Your task to perform on an android device: toggle translation in the chrome app Image 0: 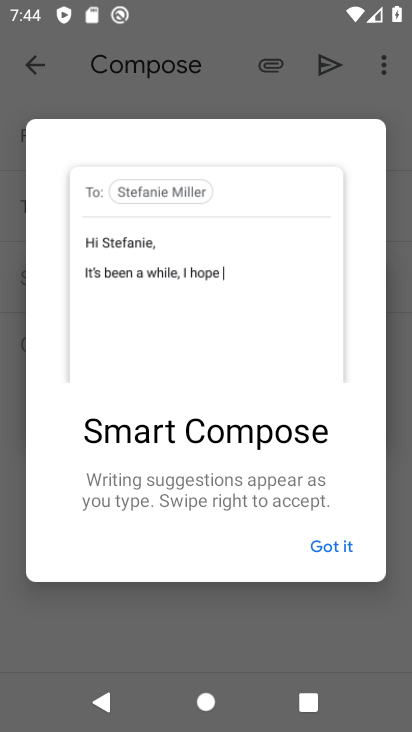
Step 0: click (337, 542)
Your task to perform on an android device: toggle translation in the chrome app Image 1: 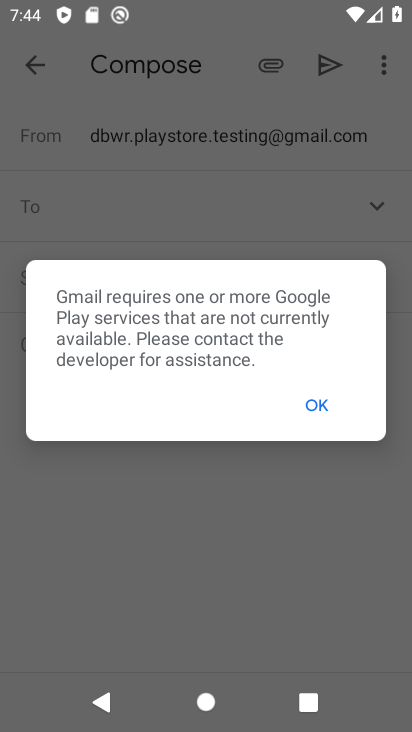
Step 1: press home button
Your task to perform on an android device: toggle translation in the chrome app Image 2: 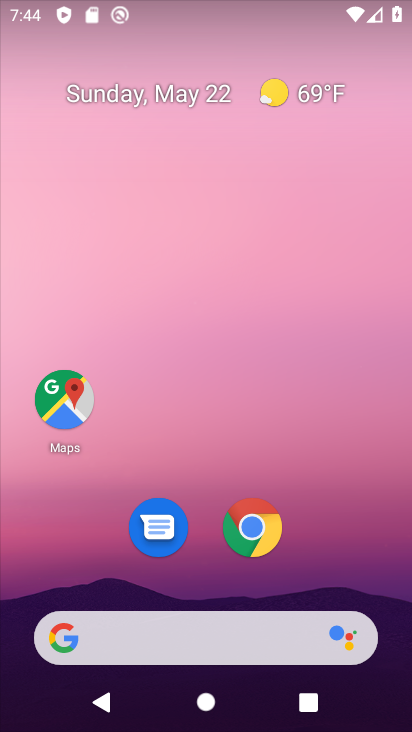
Step 2: click (255, 519)
Your task to perform on an android device: toggle translation in the chrome app Image 3: 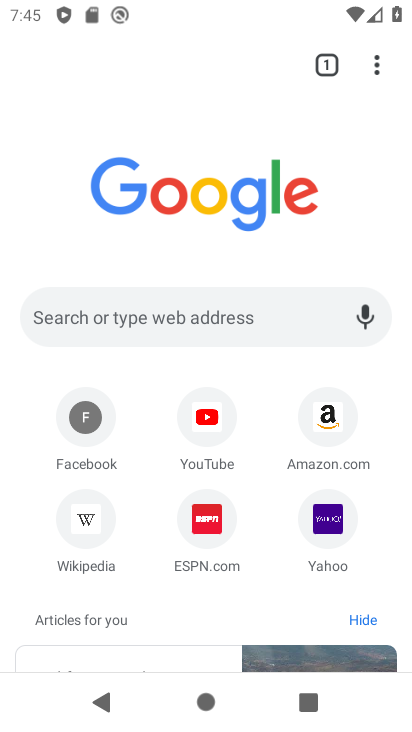
Step 3: click (379, 55)
Your task to perform on an android device: toggle translation in the chrome app Image 4: 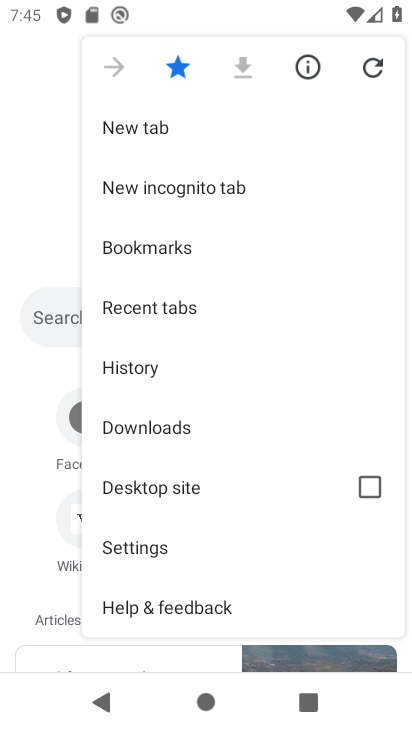
Step 4: click (185, 547)
Your task to perform on an android device: toggle translation in the chrome app Image 5: 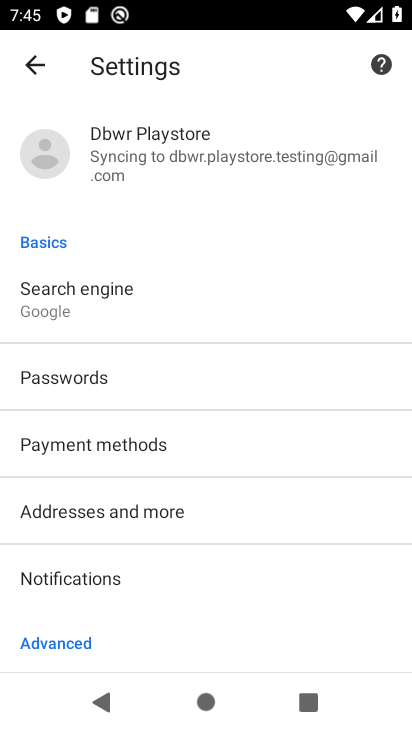
Step 5: drag from (195, 599) to (189, 131)
Your task to perform on an android device: toggle translation in the chrome app Image 6: 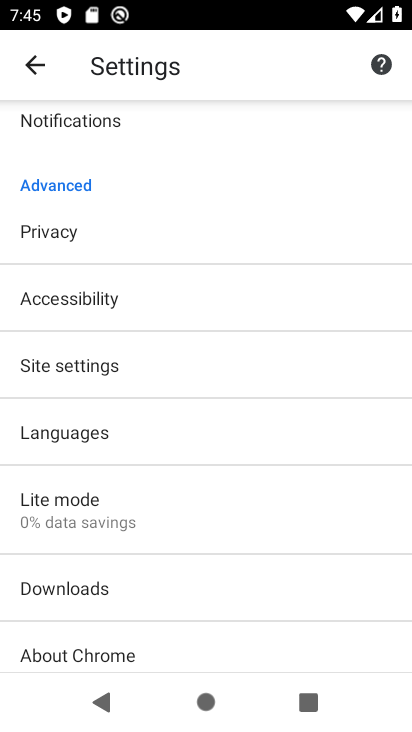
Step 6: click (129, 430)
Your task to perform on an android device: toggle translation in the chrome app Image 7: 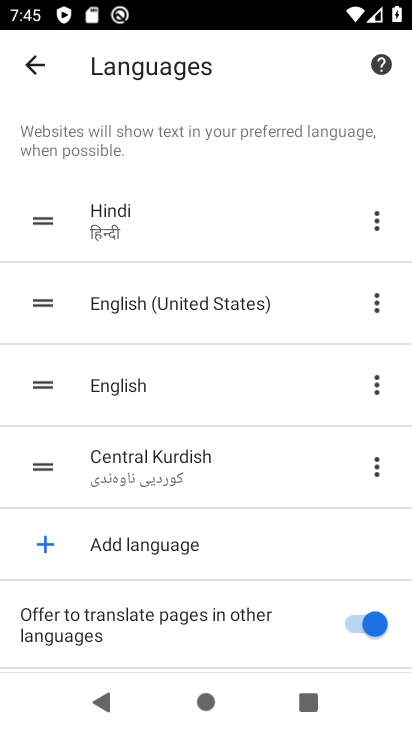
Step 7: click (369, 620)
Your task to perform on an android device: toggle translation in the chrome app Image 8: 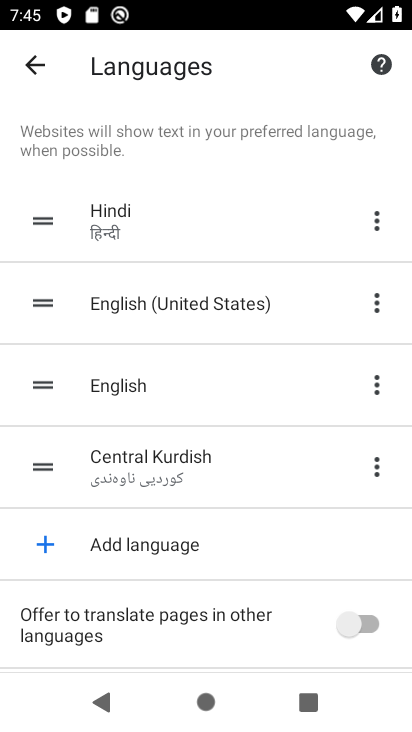
Step 8: task complete